Your task to perform on an android device: Open Google Chrome and open the bookmarks view Image 0: 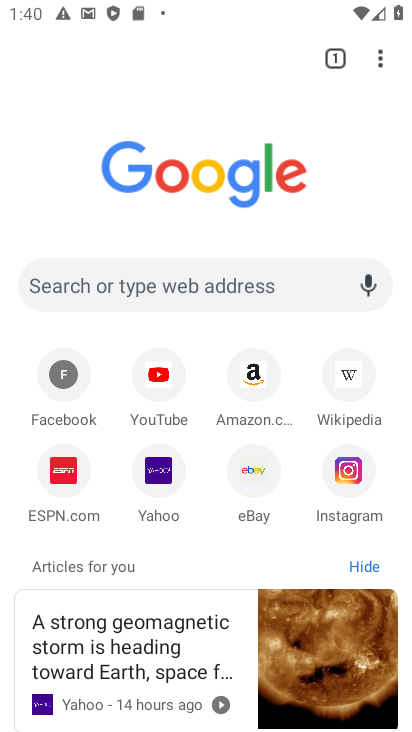
Step 0: press home button
Your task to perform on an android device: Open Google Chrome and open the bookmarks view Image 1: 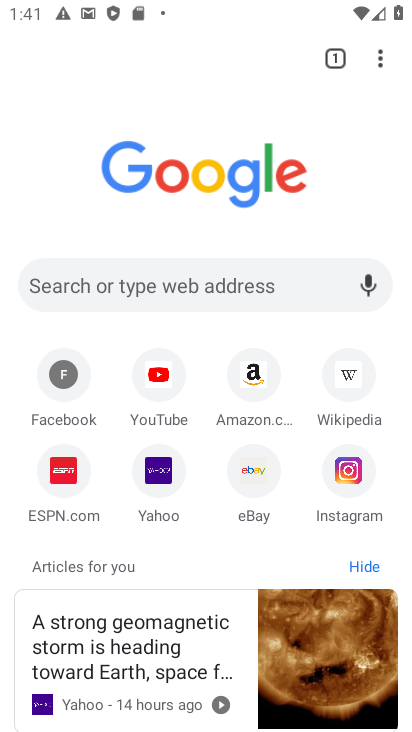
Step 1: press home button
Your task to perform on an android device: Open Google Chrome and open the bookmarks view Image 2: 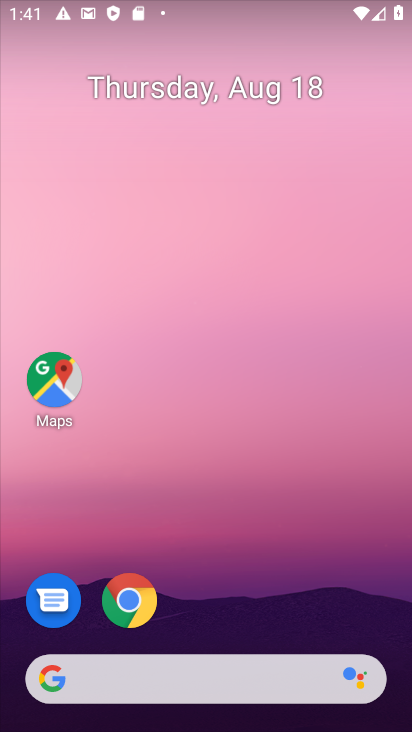
Step 2: click (126, 594)
Your task to perform on an android device: Open Google Chrome and open the bookmarks view Image 3: 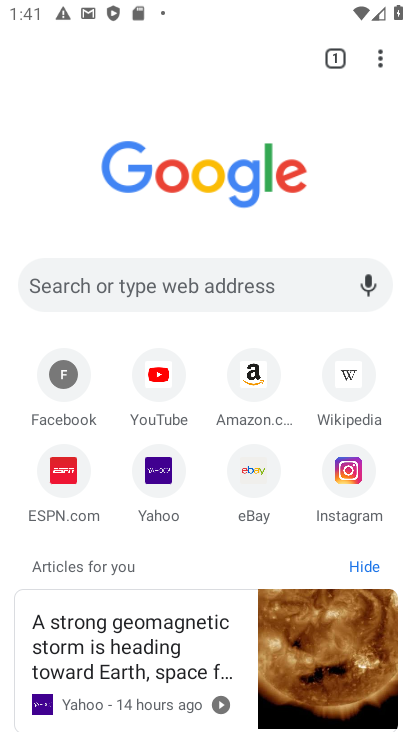
Step 3: task complete